Your task to perform on an android device: delete browsing data in the chrome app Image 0: 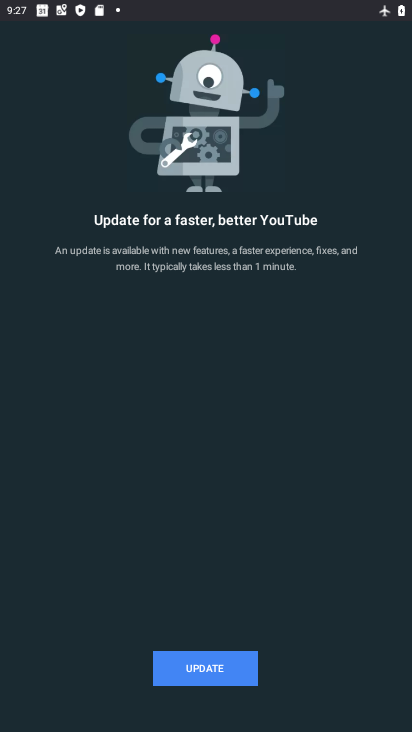
Step 0: press home button
Your task to perform on an android device: delete browsing data in the chrome app Image 1: 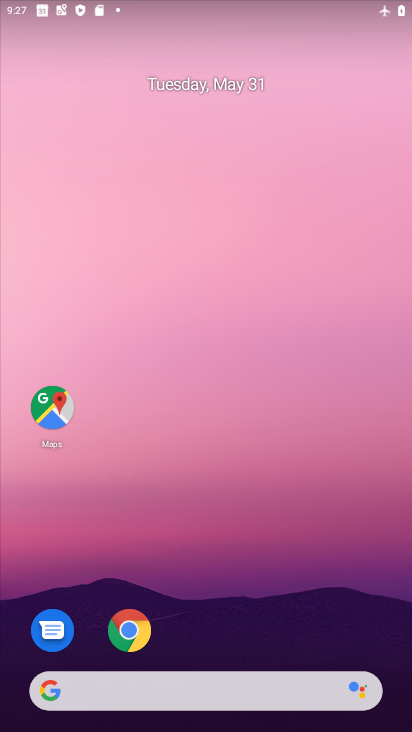
Step 1: drag from (251, 648) to (278, 193)
Your task to perform on an android device: delete browsing data in the chrome app Image 2: 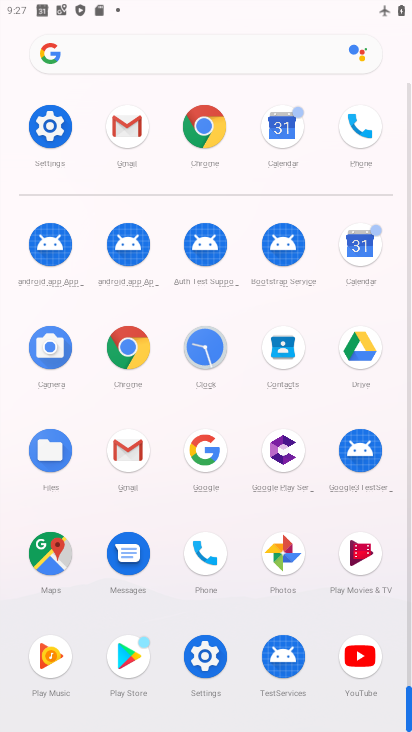
Step 2: click (126, 347)
Your task to perform on an android device: delete browsing data in the chrome app Image 3: 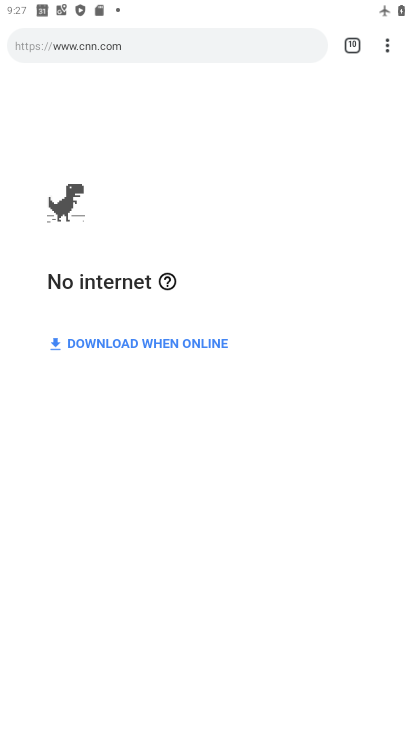
Step 3: click (384, 39)
Your task to perform on an android device: delete browsing data in the chrome app Image 4: 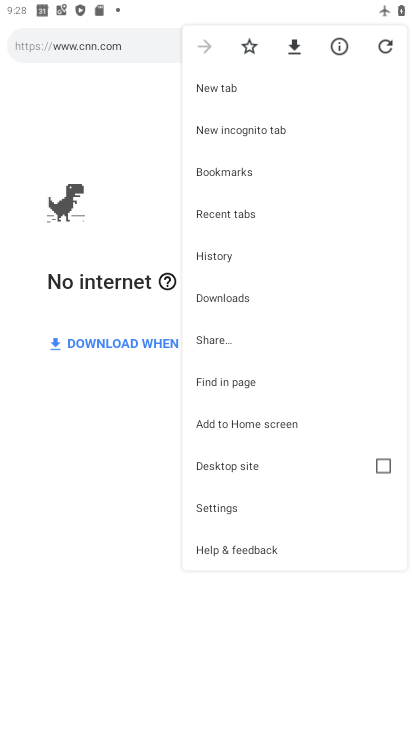
Step 4: click (253, 506)
Your task to perform on an android device: delete browsing data in the chrome app Image 5: 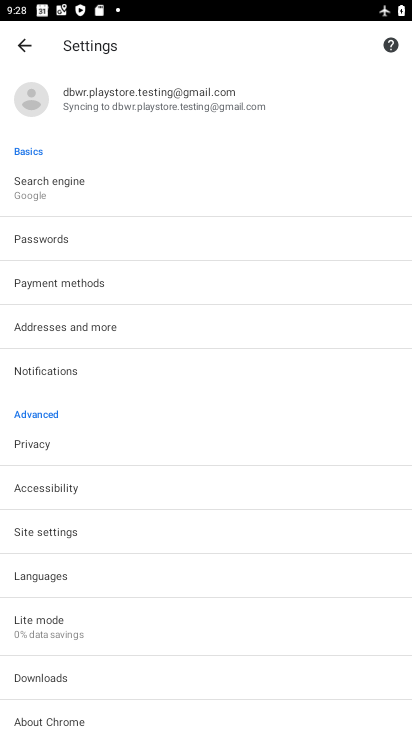
Step 5: click (95, 445)
Your task to perform on an android device: delete browsing data in the chrome app Image 6: 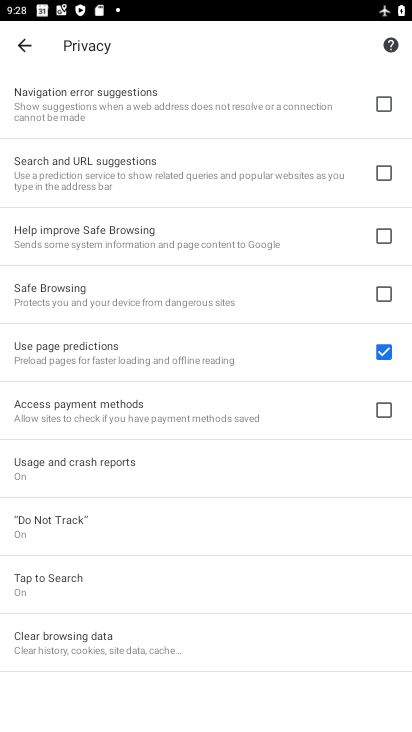
Step 6: drag from (130, 532) to (164, 333)
Your task to perform on an android device: delete browsing data in the chrome app Image 7: 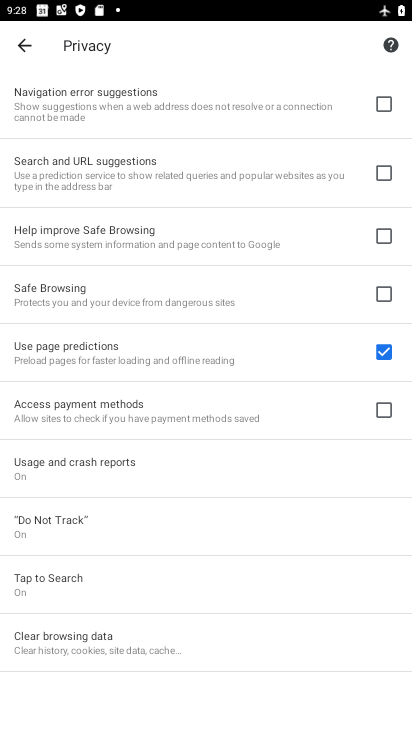
Step 7: click (129, 639)
Your task to perform on an android device: delete browsing data in the chrome app Image 8: 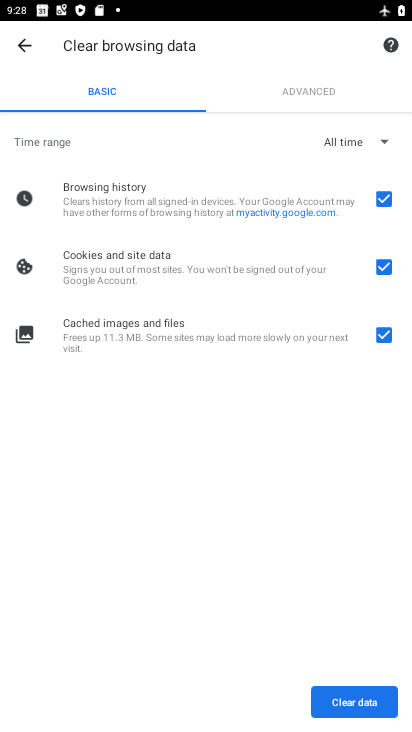
Step 8: click (352, 708)
Your task to perform on an android device: delete browsing data in the chrome app Image 9: 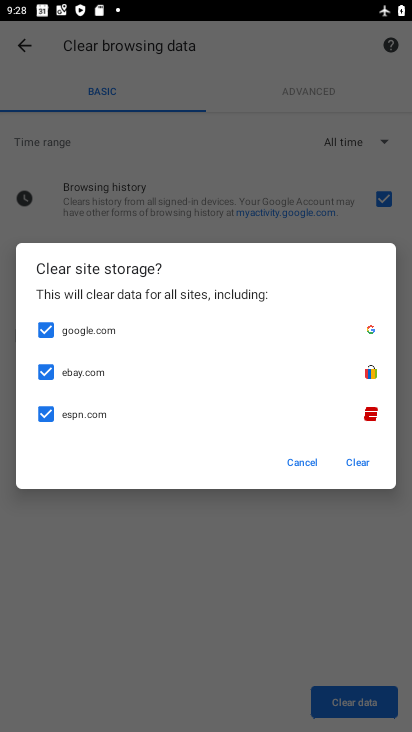
Step 9: click (357, 459)
Your task to perform on an android device: delete browsing data in the chrome app Image 10: 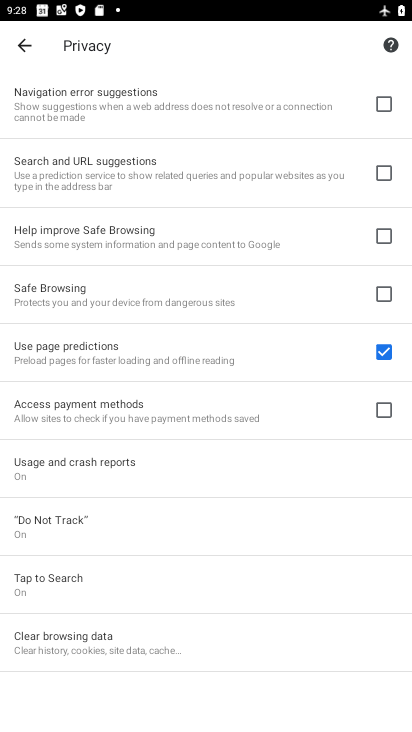
Step 10: task complete